Your task to perform on an android device: Open Chrome and go to settings Image 0: 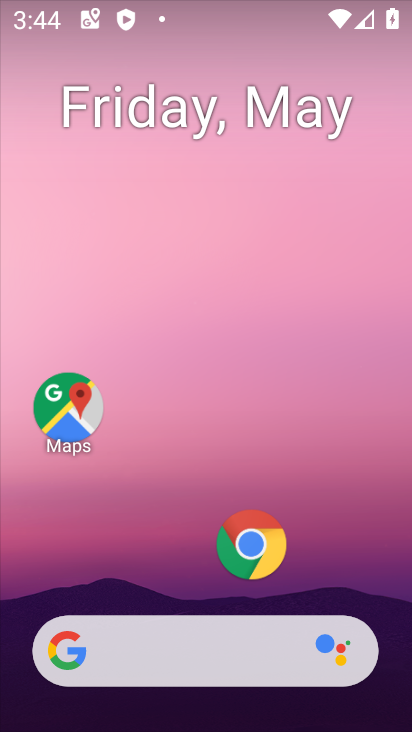
Step 0: click (253, 545)
Your task to perform on an android device: Open Chrome and go to settings Image 1: 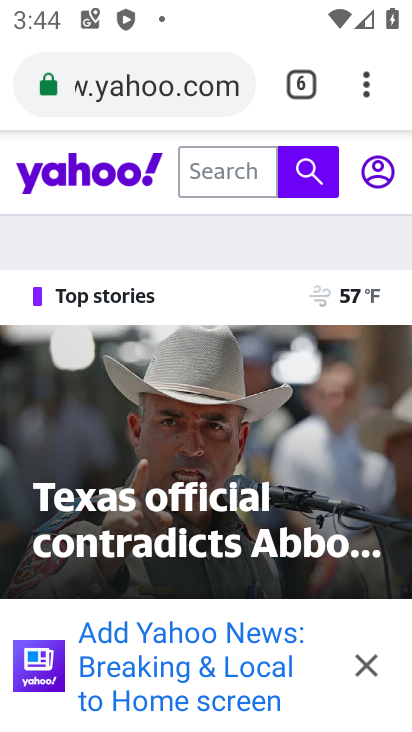
Step 1: click (362, 95)
Your task to perform on an android device: Open Chrome and go to settings Image 2: 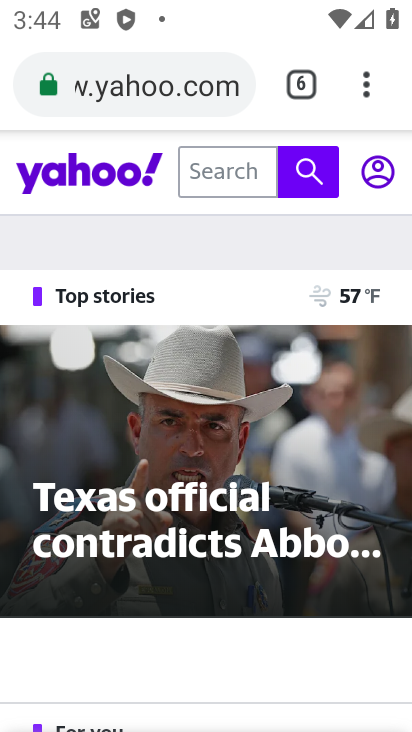
Step 2: task complete